Your task to perform on an android device: snooze an email in the gmail app Image 0: 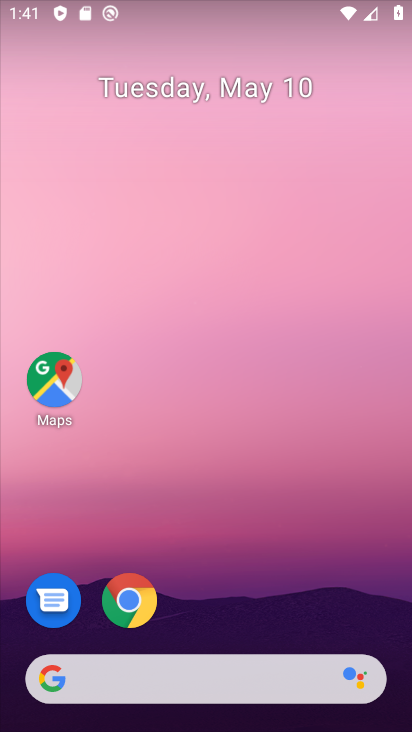
Step 0: drag from (238, 590) to (247, 248)
Your task to perform on an android device: snooze an email in the gmail app Image 1: 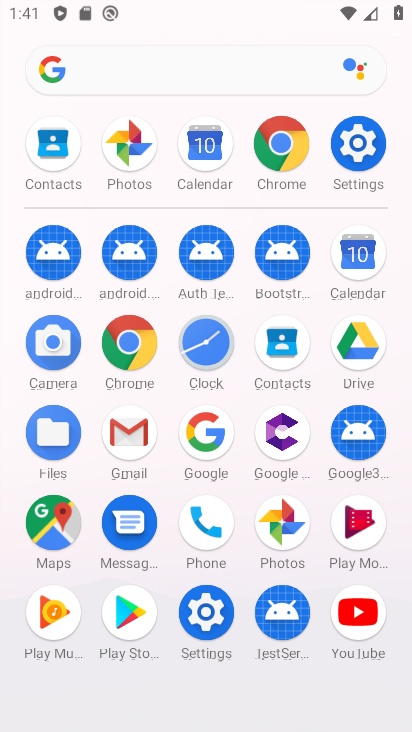
Step 1: click (121, 461)
Your task to perform on an android device: snooze an email in the gmail app Image 2: 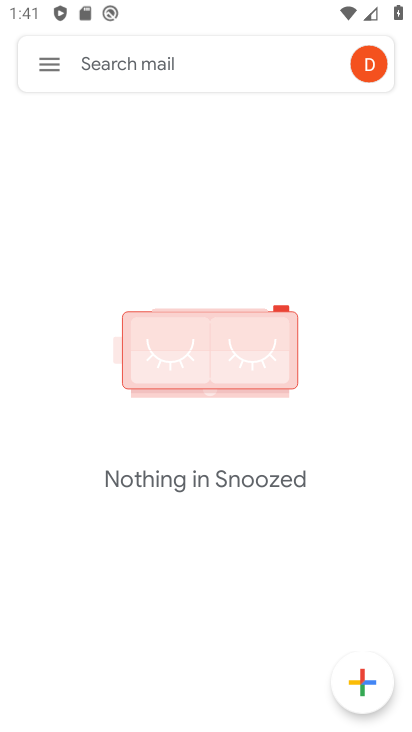
Step 2: task complete